Your task to perform on an android device: change alarm snooze length Image 0: 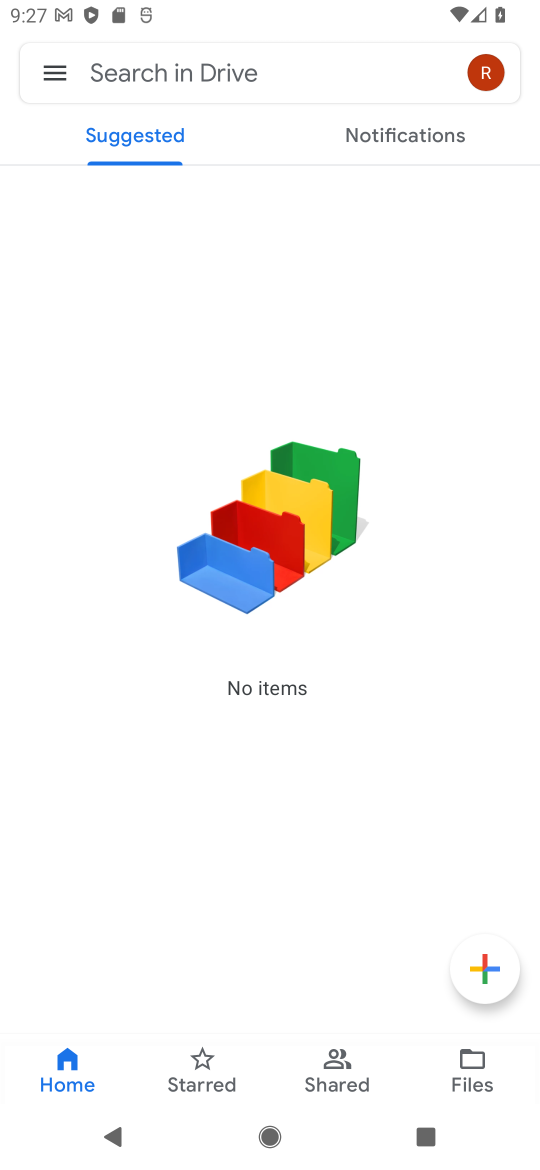
Step 0: press home button
Your task to perform on an android device: change alarm snooze length Image 1: 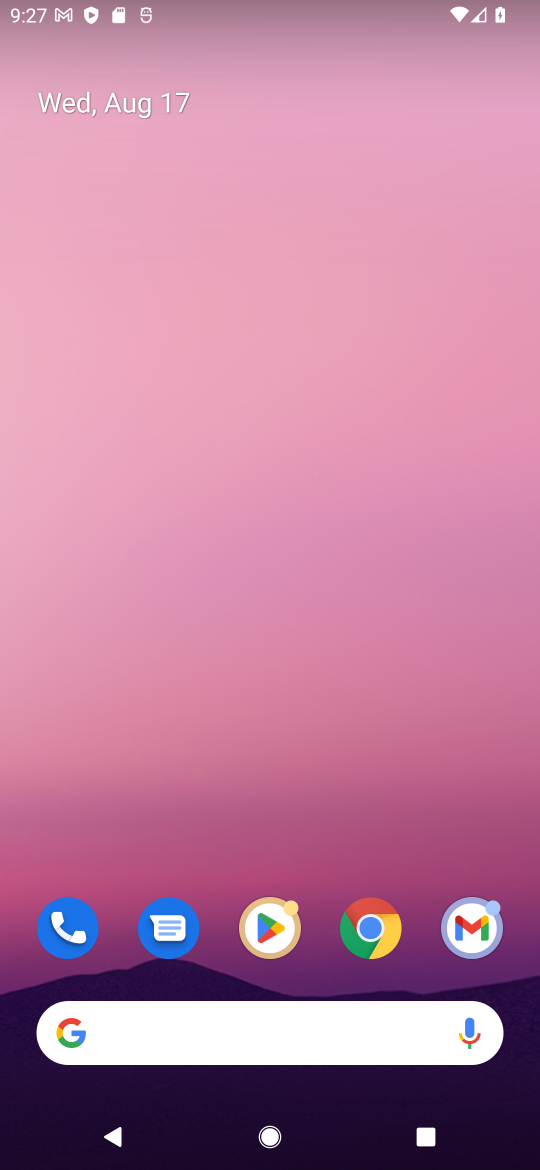
Step 1: drag from (287, 759) to (222, 165)
Your task to perform on an android device: change alarm snooze length Image 2: 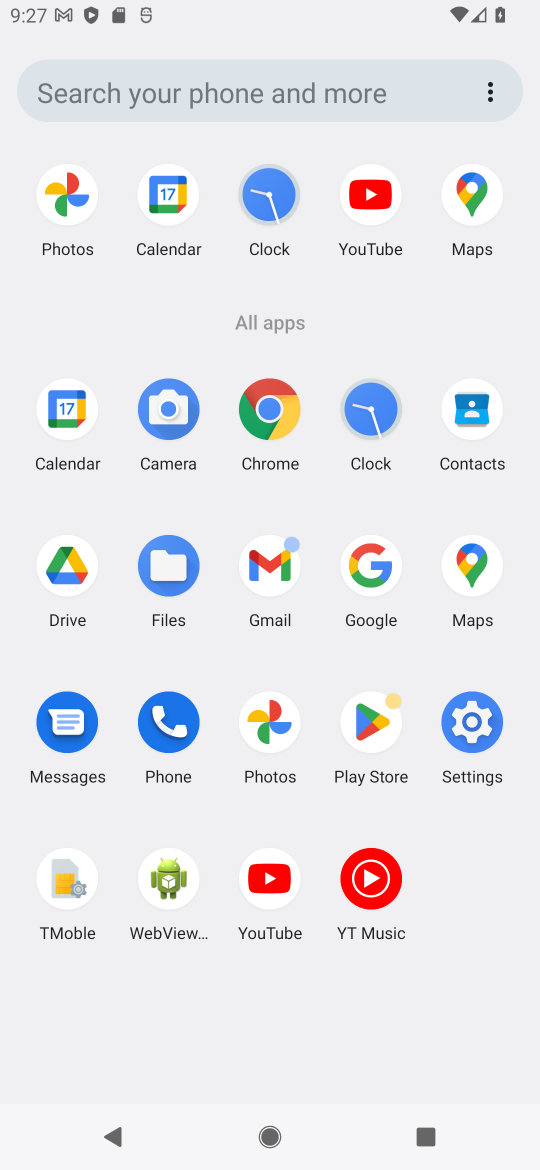
Step 2: click (357, 420)
Your task to perform on an android device: change alarm snooze length Image 3: 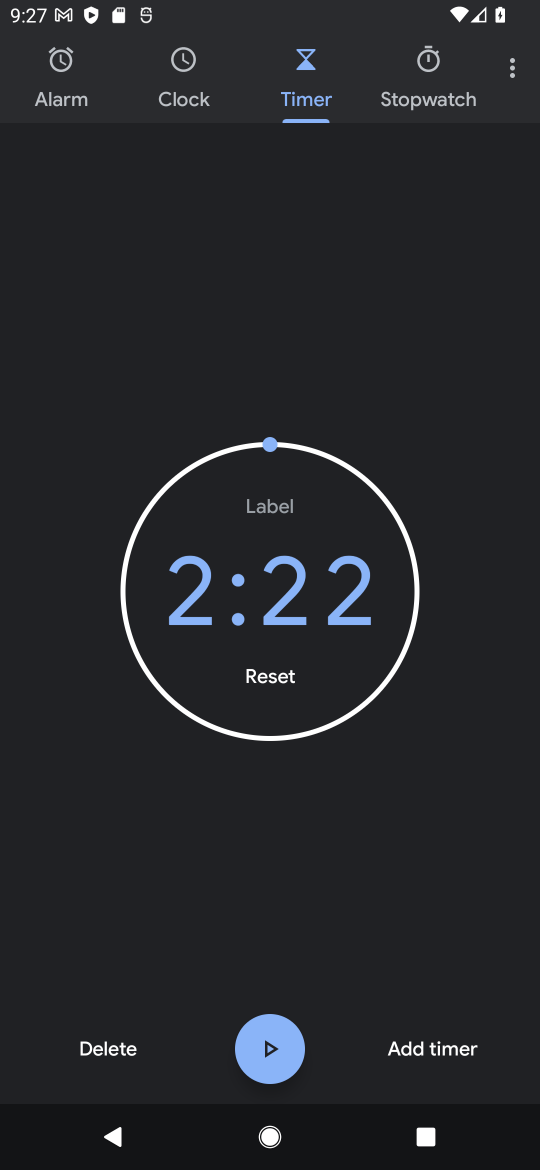
Step 3: click (520, 76)
Your task to perform on an android device: change alarm snooze length Image 4: 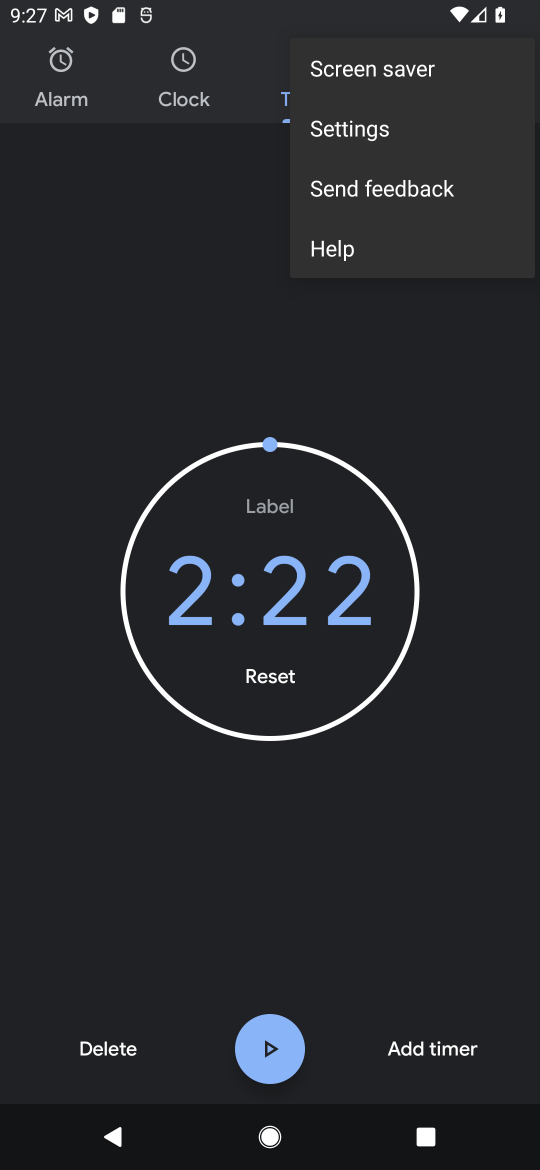
Step 4: click (397, 138)
Your task to perform on an android device: change alarm snooze length Image 5: 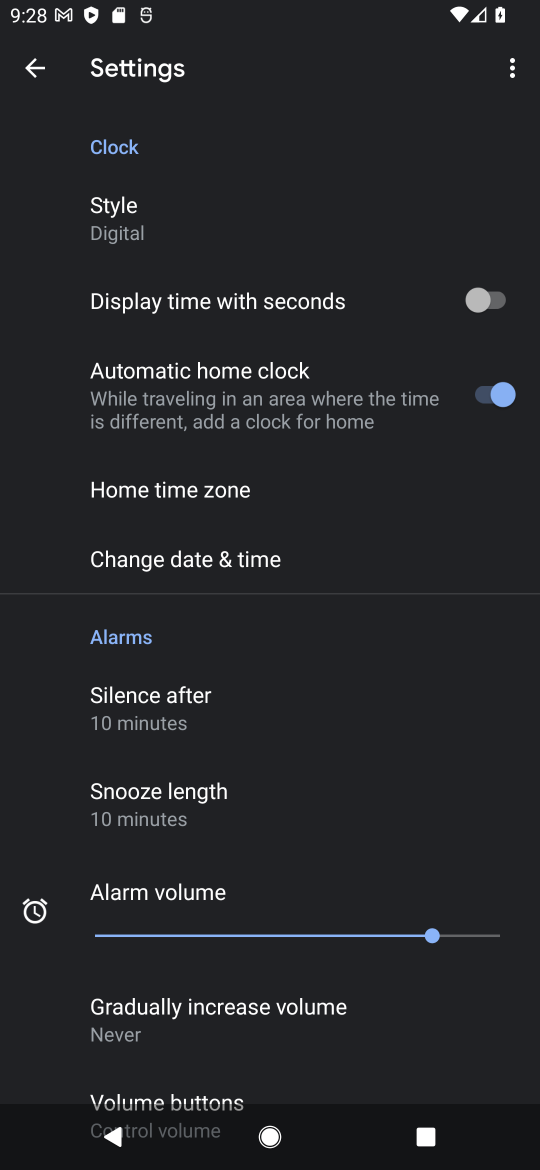
Step 5: click (235, 791)
Your task to perform on an android device: change alarm snooze length Image 6: 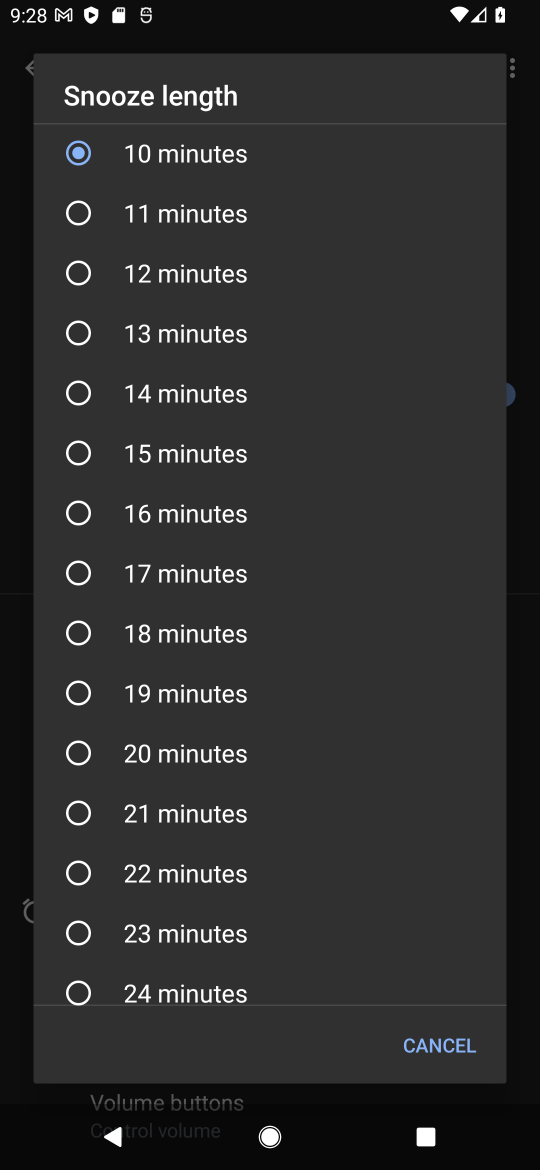
Step 6: click (193, 946)
Your task to perform on an android device: change alarm snooze length Image 7: 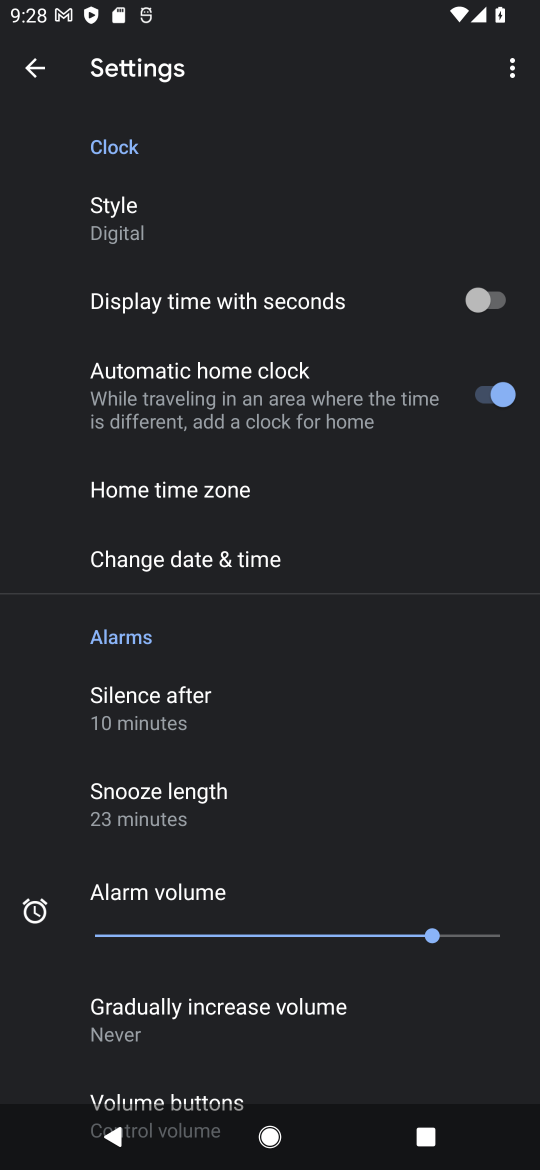
Step 7: task complete